Your task to perform on an android device: see tabs open on other devices in the chrome app Image 0: 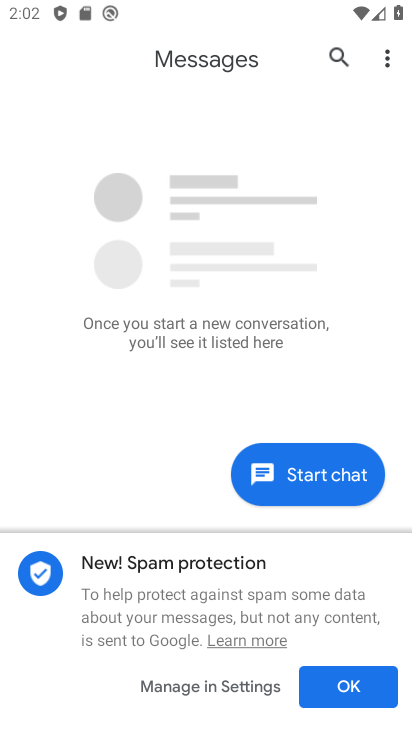
Step 0: press home button
Your task to perform on an android device: see tabs open on other devices in the chrome app Image 1: 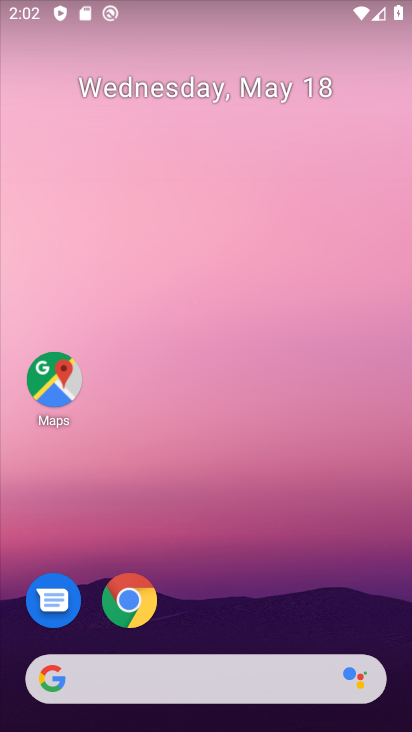
Step 1: click (132, 605)
Your task to perform on an android device: see tabs open on other devices in the chrome app Image 2: 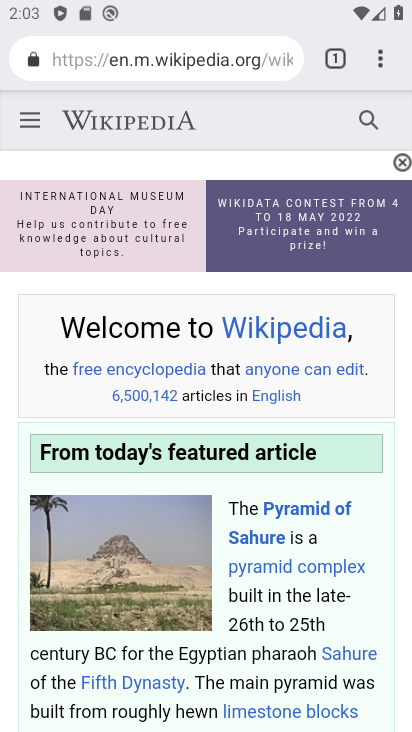
Step 2: task complete